Your task to perform on an android device: turn on the 12-hour format for clock Image 0: 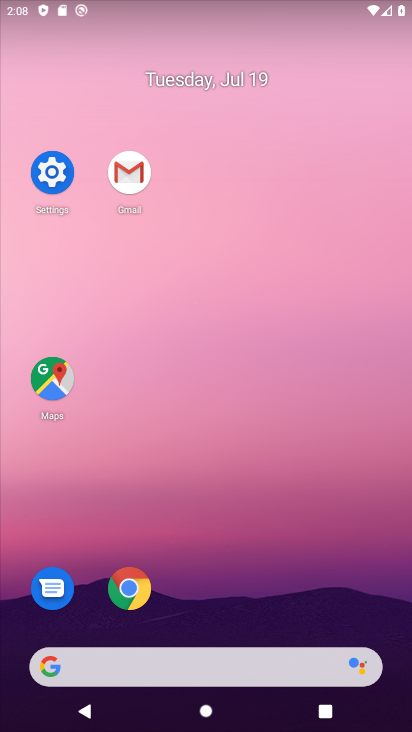
Step 0: drag from (265, 359) to (295, 120)
Your task to perform on an android device: turn on the 12-hour format for clock Image 1: 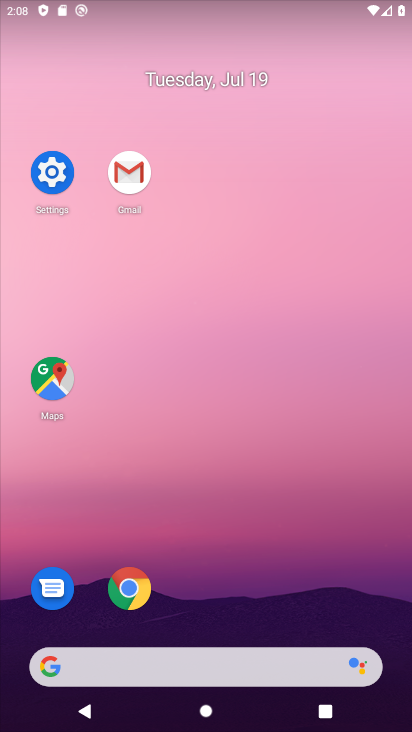
Step 1: drag from (240, 620) to (248, 76)
Your task to perform on an android device: turn on the 12-hour format for clock Image 2: 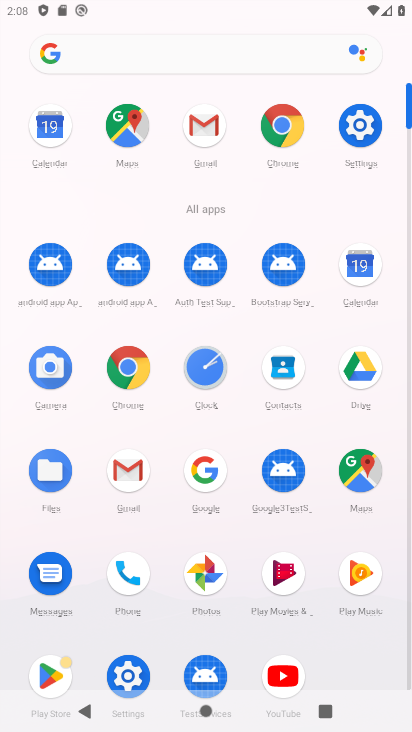
Step 2: drag from (203, 372) to (199, 195)
Your task to perform on an android device: turn on the 12-hour format for clock Image 3: 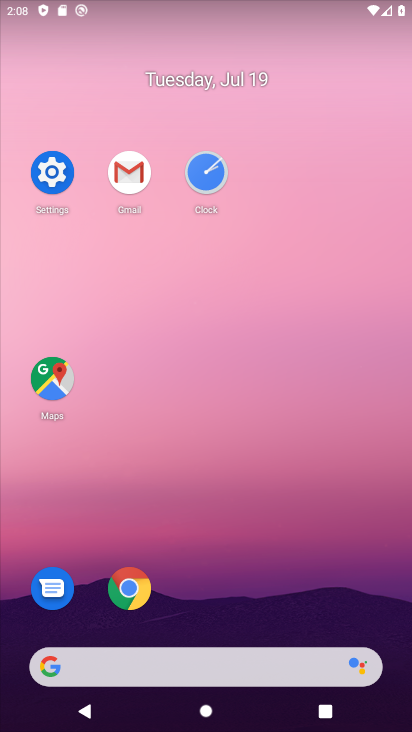
Step 3: click (217, 167)
Your task to perform on an android device: turn on the 12-hour format for clock Image 4: 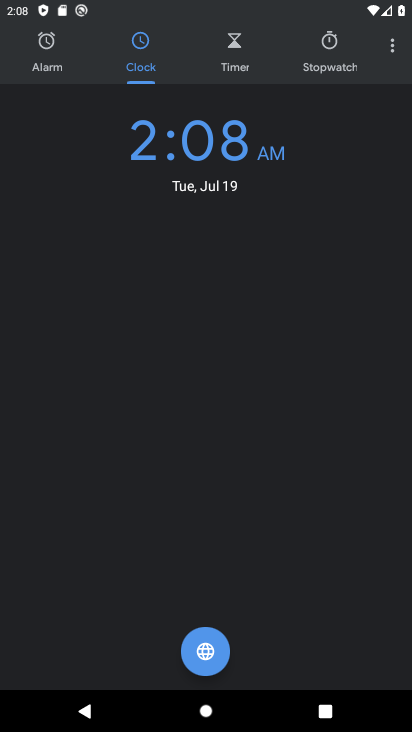
Step 4: click (393, 46)
Your task to perform on an android device: turn on the 12-hour format for clock Image 5: 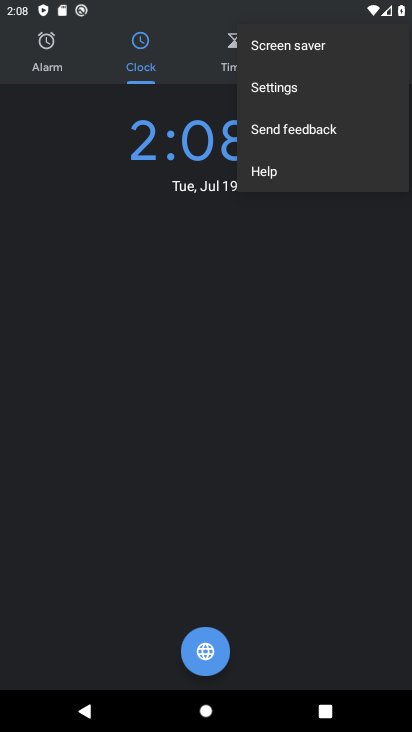
Step 5: click (288, 98)
Your task to perform on an android device: turn on the 12-hour format for clock Image 6: 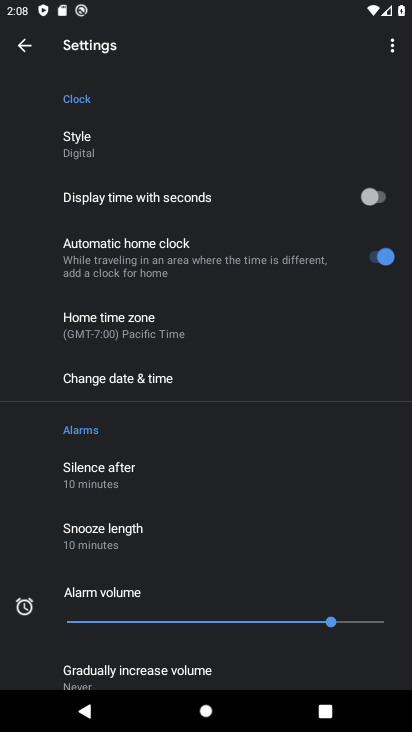
Step 6: click (120, 391)
Your task to perform on an android device: turn on the 12-hour format for clock Image 7: 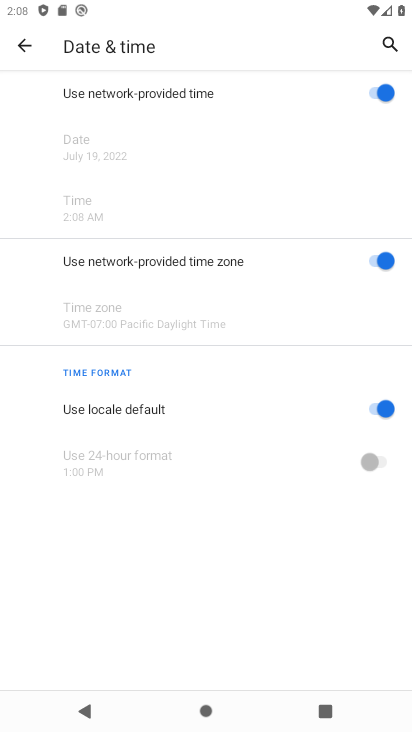
Step 7: click (384, 417)
Your task to perform on an android device: turn on the 12-hour format for clock Image 8: 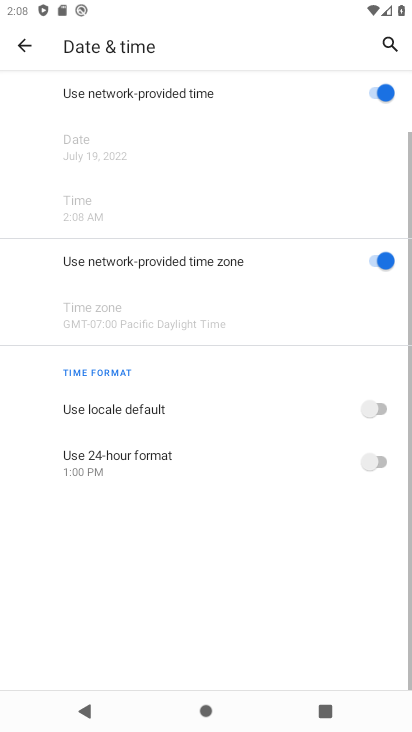
Step 8: click (384, 417)
Your task to perform on an android device: turn on the 12-hour format for clock Image 9: 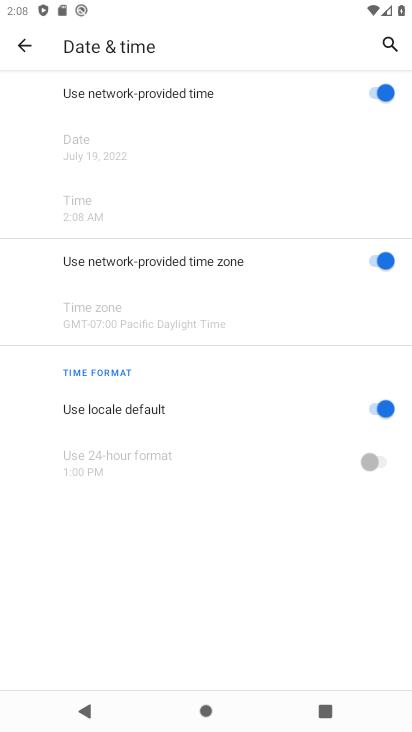
Step 9: task complete